Your task to perform on an android device: Go to Maps Image 0: 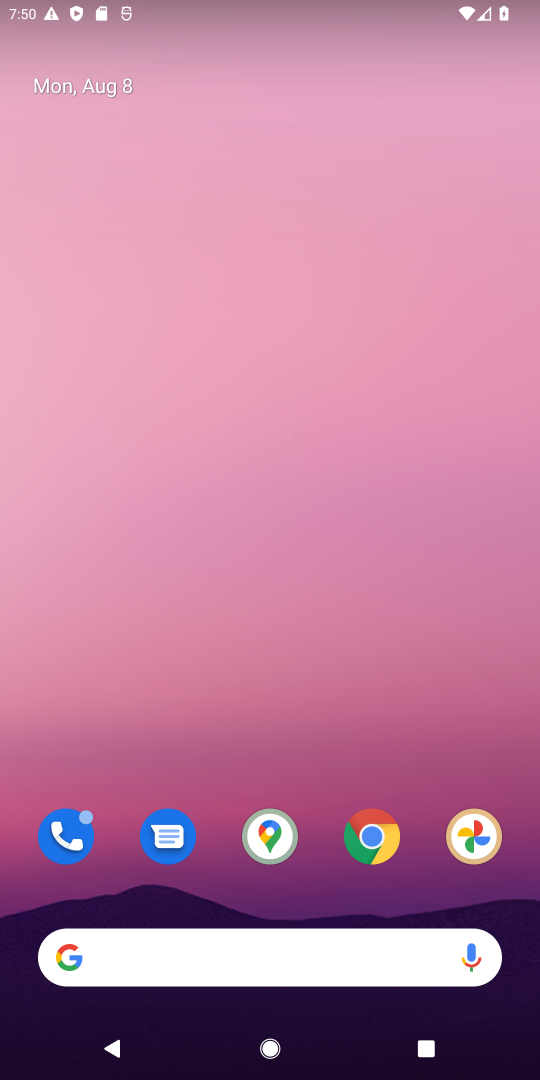
Step 0: click (288, 829)
Your task to perform on an android device: Go to Maps Image 1: 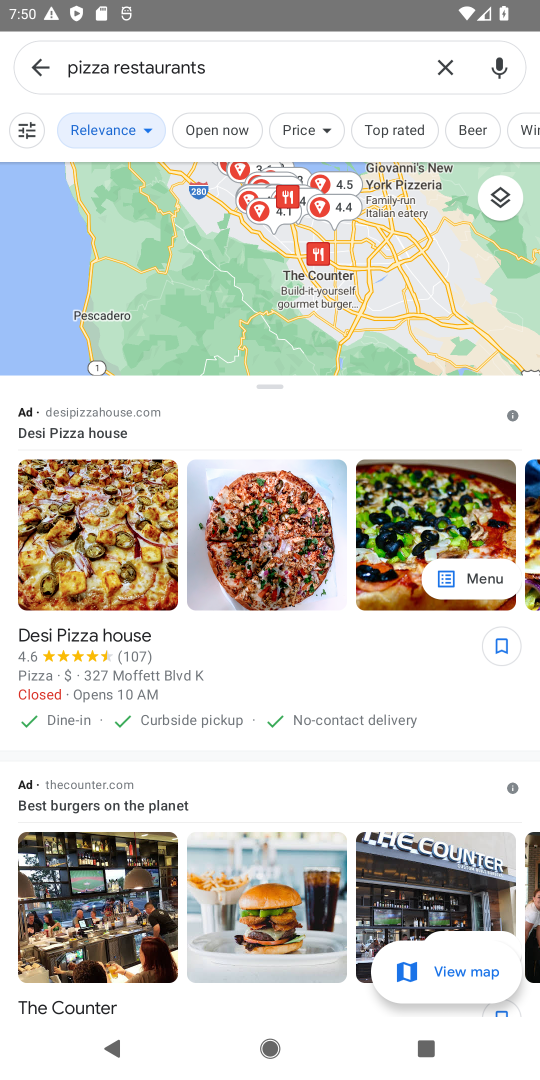
Step 1: click (44, 75)
Your task to perform on an android device: Go to Maps Image 2: 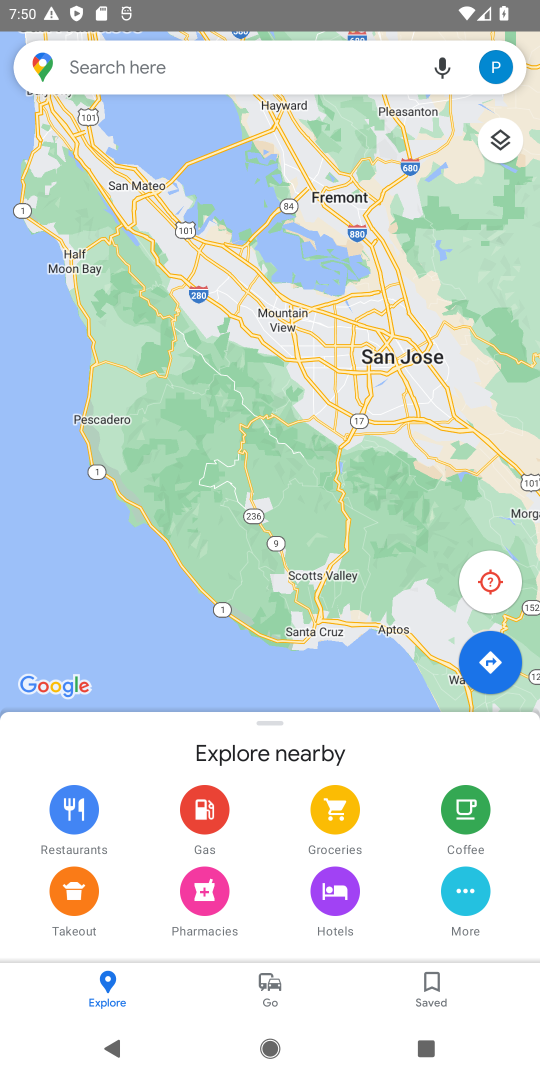
Step 2: task complete